Your task to perform on an android device: What's on my calendar today? Image 0: 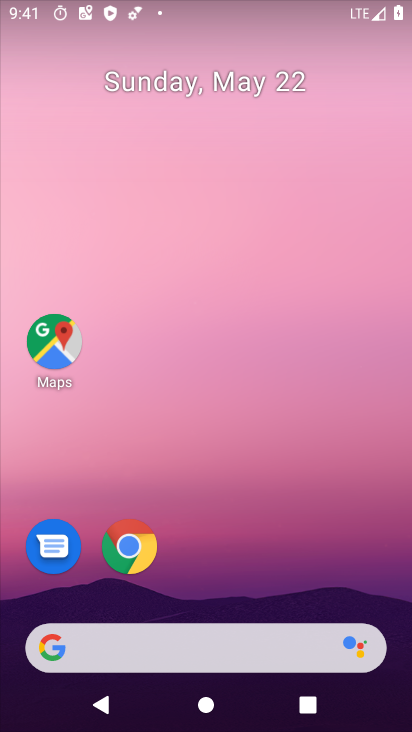
Step 0: click (248, 170)
Your task to perform on an android device: What's on my calendar today? Image 1: 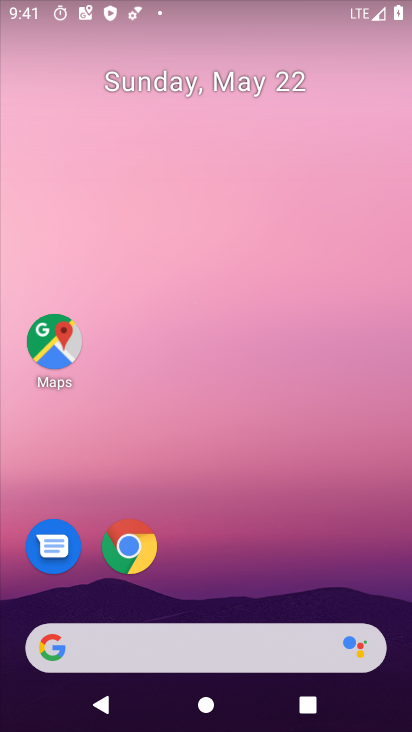
Step 1: drag from (182, 549) to (215, 186)
Your task to perform on an android device: What's on my calendar today? Image 2: 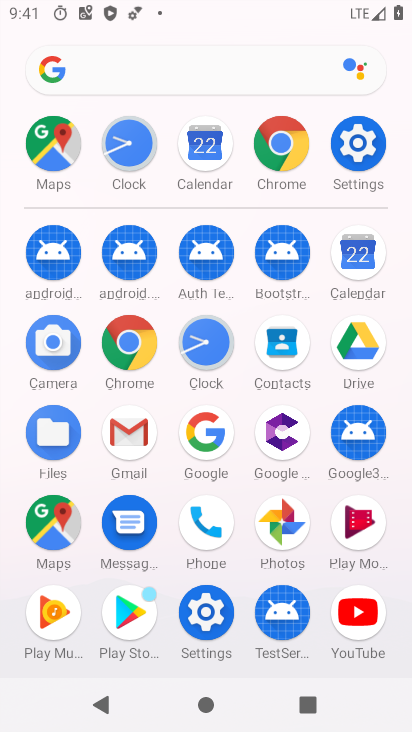
Step 2: click (364, 248)
Your task to perform on an android device: What's on my calendar today? Image 3: 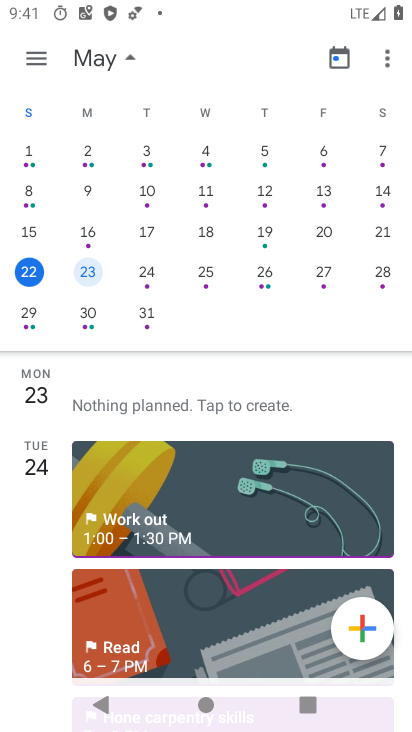
Step 3: click (75, 271)
Your task to perform on an android device: What's on my calendar today? Image 4: 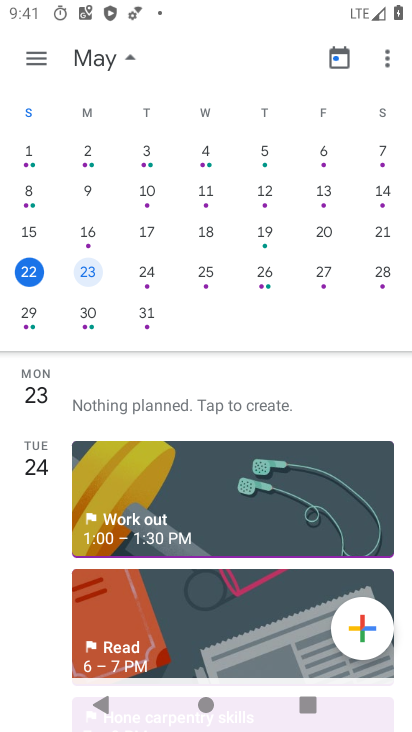
Step 4: click (92, 272)
Your task to perform on an android device: What's on my calendar today? Image 5: 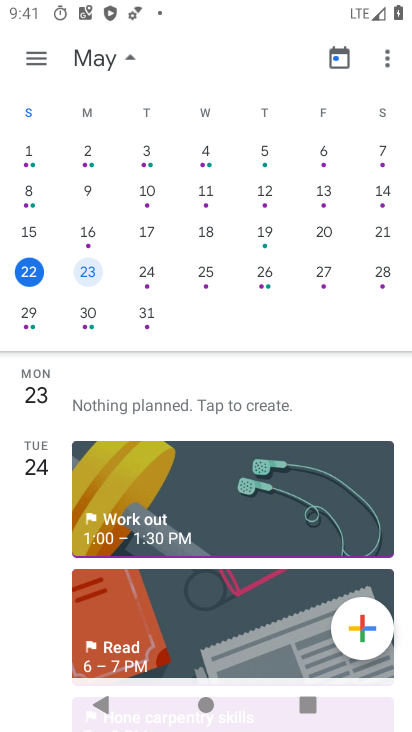
Step 5: task complete